Your task to perform on an android device: Open Yahoo.com Image 0: 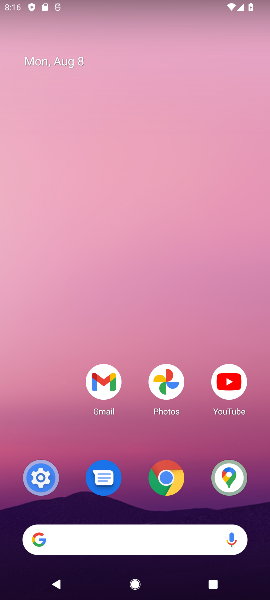
Step 0: click (164, 486)
Your task to perform on an android device: Open Yahoo.com Image 1: 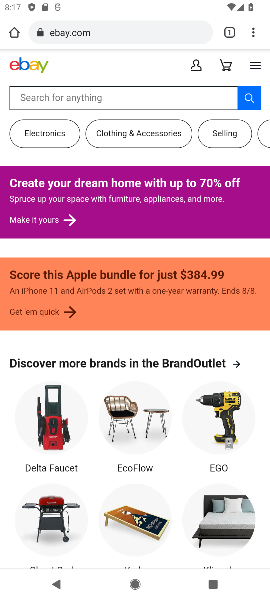
Step 1: drag from (253, 30) to (192, 56)
Your task to perform on an android device: Open Yahoo.com Image 2: 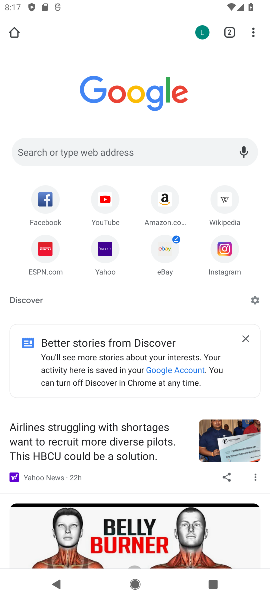
Step 2: click (100, 251)
Your task to perform on an android device: Open Yahoo.com Image 3: 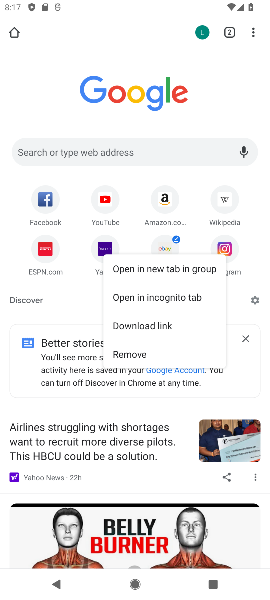
Step 3: click (100, 250)
Your task to perform on an android device: Open Yahoo.com Image 4: 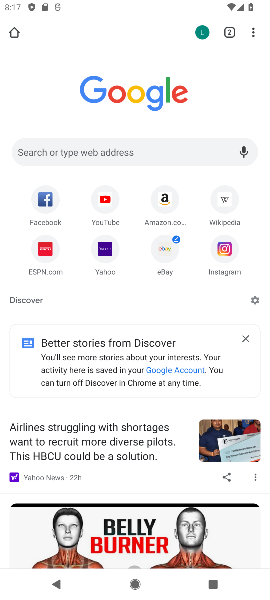
Step 4: click (107, 249)
Your task to perform on an android device: Open Yahoo.com Image 5: 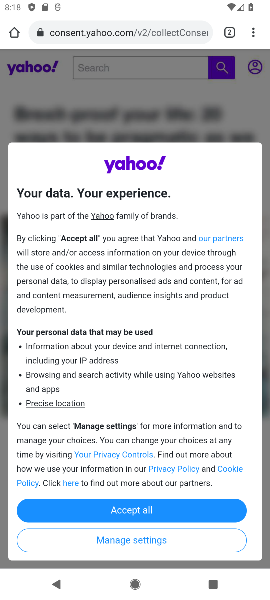
Step 5: click (141, 510)
Your task to perform on an android device: Open Yahoo.com Image 6: 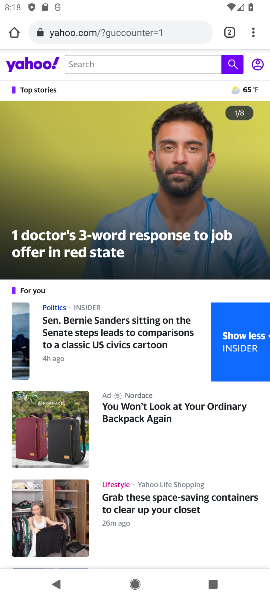
Step 6: task complete